Your task to perform on an android device: delete a single message in the gmail app Image 0: 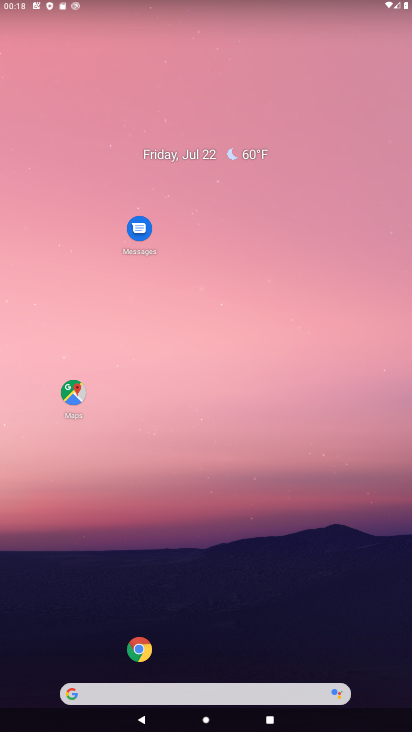
Step 0: drag from (152, 437) to (205, 179)
Your task to perform on an android device: delete a single message in the gmail app Image 1: 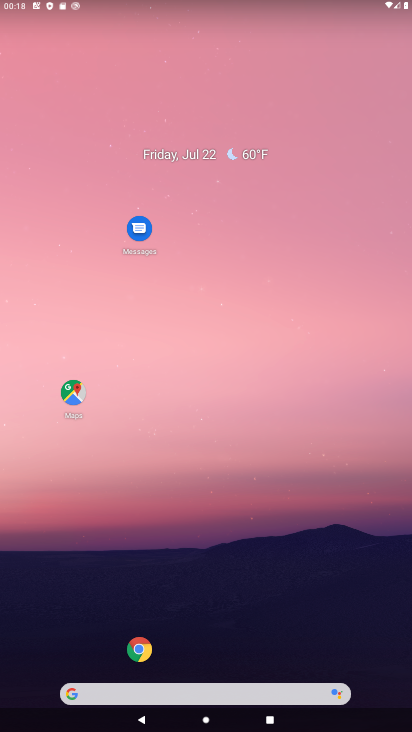
Step 1: drag from (139, 455) to (218, 202)
Your task to perform on an android device: delete a single message in the gmail app Image 2: 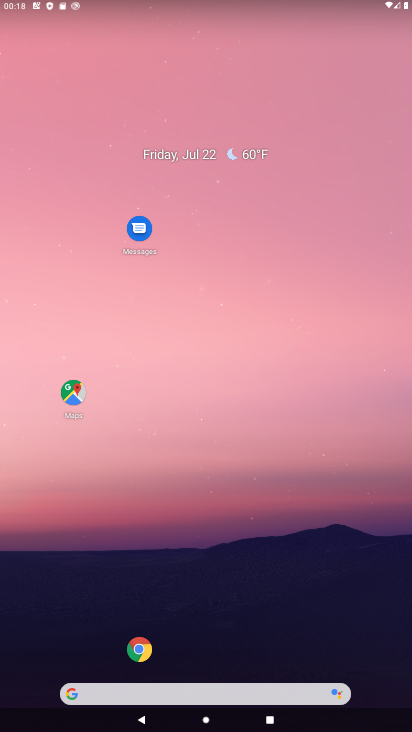
Step 2: drag from (28, 648) to (213, 161)
Your task to perform on an android device: delete a single message in the gmail app Image 3: 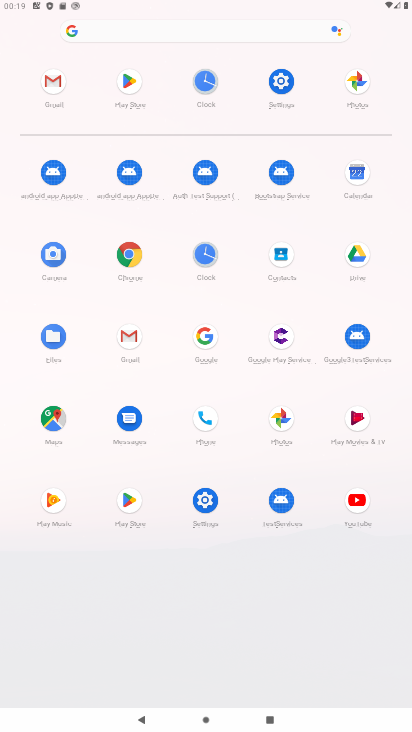
Step 3: click (134, 320)
Your task to perform on an android device: delete a single message in the gmail app Image 4: 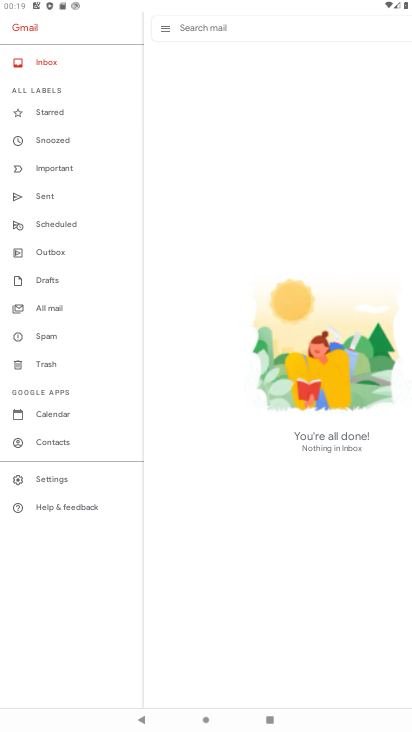
Step 4: click (46, 63)
Your task to perform on an android device: delete a single message in the gmail app Image 5: 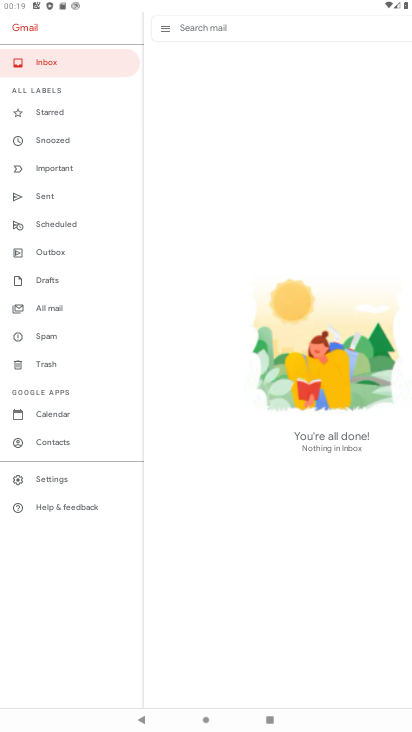
Step 5: task complete